Your task to perform on an android device: toggle improve location accuracy Image 0: 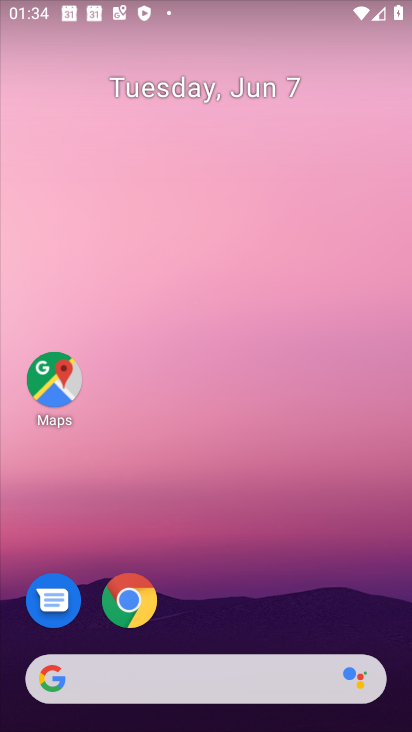
Step 0: drag from (219, 726) to (189, 266)
Your task to perform on an android device: toggle improve location accuracy Image 1: 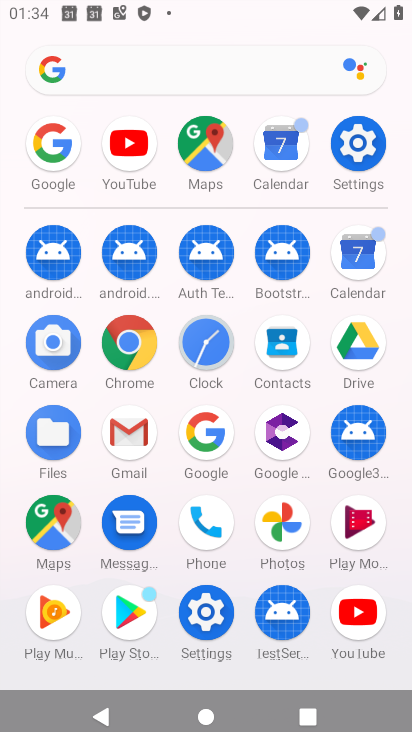
Step 1: click (359, 147)
Your task to perform on an android device: toggle improve location accuracy Image 2: 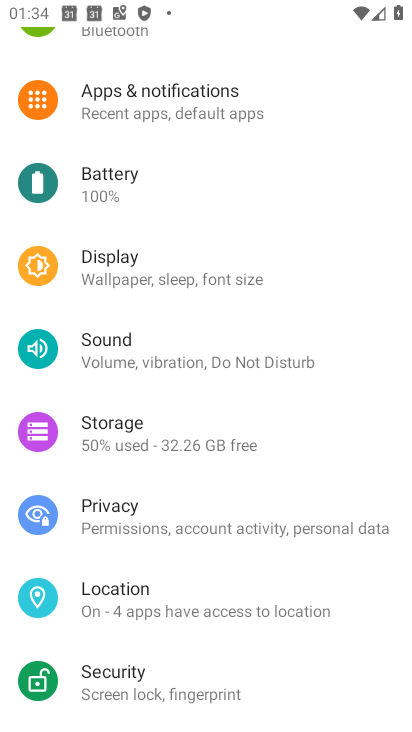
Step 2: click (121, 598)
Your task to perform on an android device: toggle improve location accuracy Image 3: 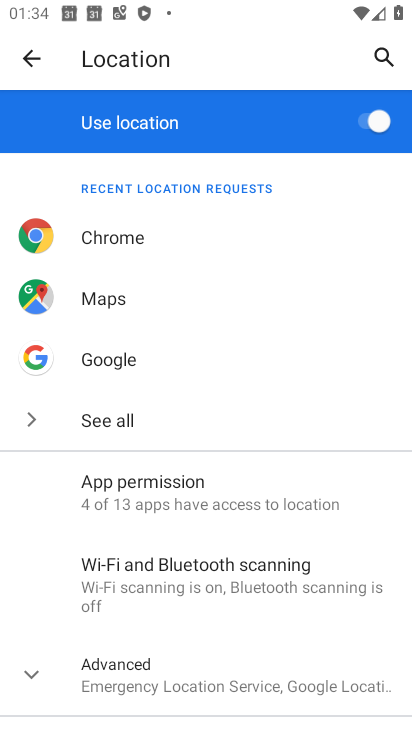
Step 3: click (133, 675)
Your task to perform on an android device: toggle improve location accuracy Image 4: 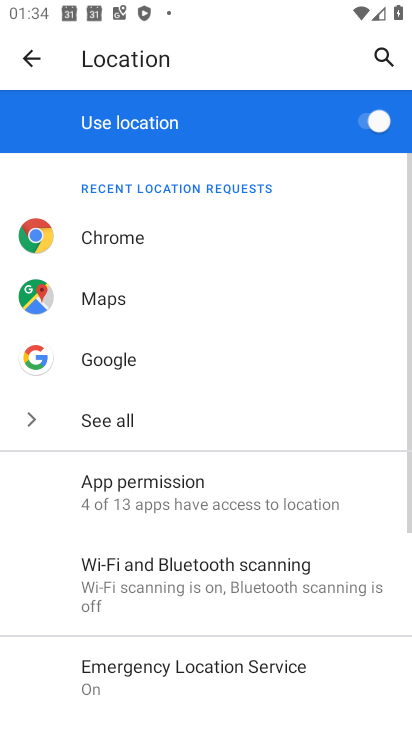
Step 4: drag from (162, 701) to (169, 404)
Your task to perform on an android device: toggle improve location accuracy Image 5: 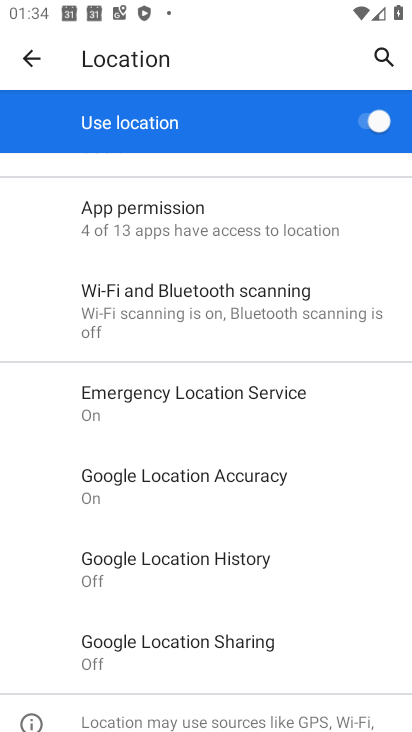
Step 5: click (177, 474)
Your task to perform on an android device: toggle improve location accuracy Image 6: 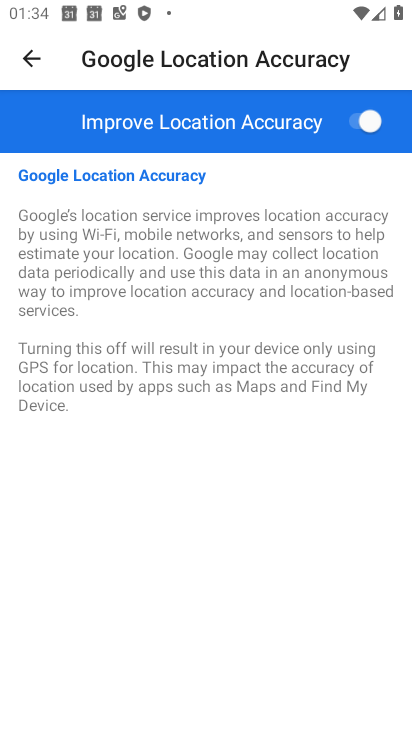
Step 6: click (356, 125)
Your task to perform on an android device: toggle improve location accuracy Image 7: 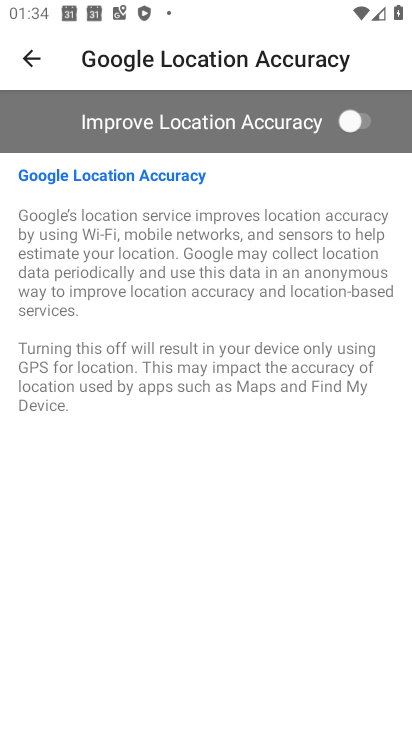
Step 7: task complete